Your task to perform on an android device: Play the last video I watched on Youtube Image 0: 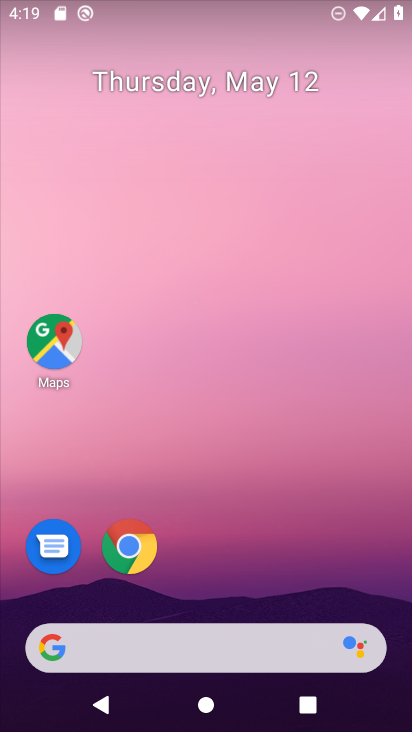
Step 0: drag from (286, 522) to (286, 259)
Your task to perform on an android device: Play the last video I watched on Youtube Image 1: 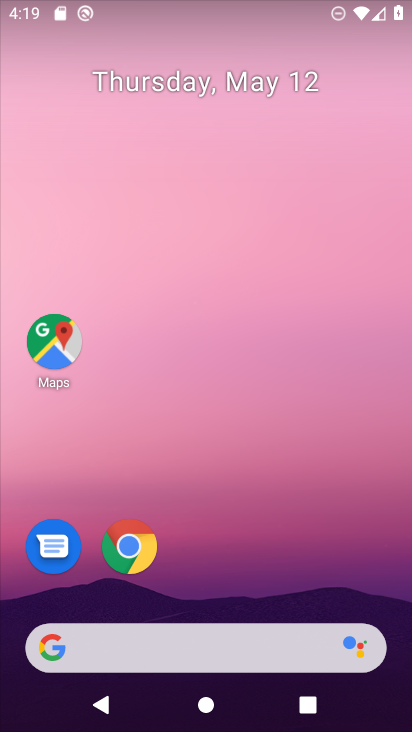
Step 1: drag from (260, 600) to (260, 269)
Your task to perform on an android device: Play the last video I watched on Youtube Image 2: 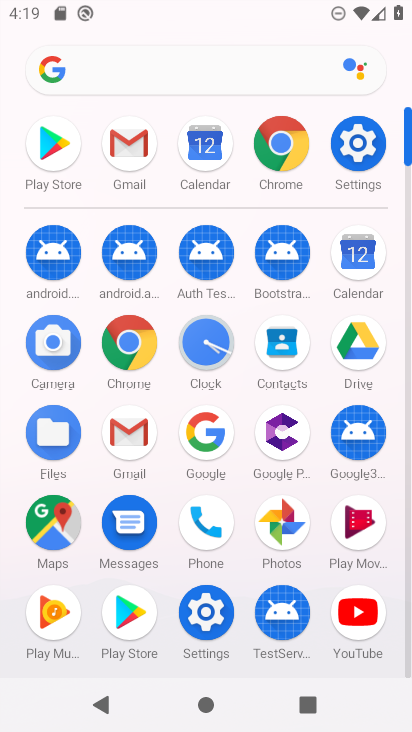
Step 2: click (353, 629)
Your task to perform on an android device: Play the last video I watched on Youtube Image 3: 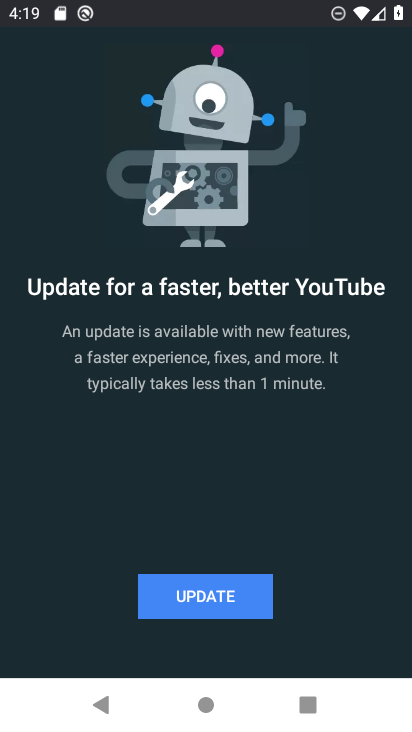
Step 3: task complete